Your task to perform on an android device: check battery use Image 0: 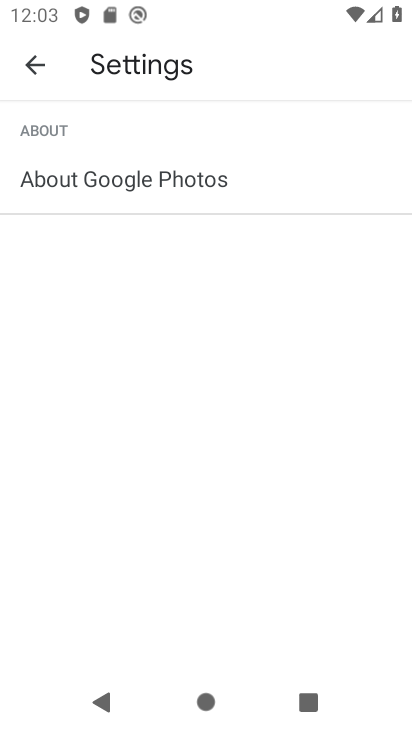
Step 0: press home button
Your task to perform on an android device: check battery use Image 1: 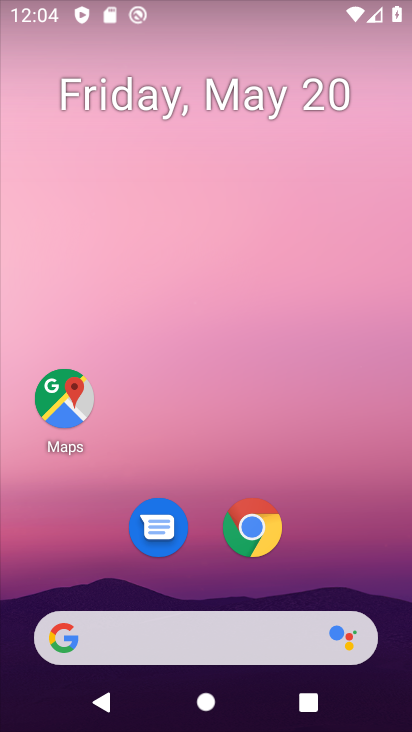
Step 1: drag from (353, 574) to (350, 0)
Your task to perform on an android device: check battery use Image 2: 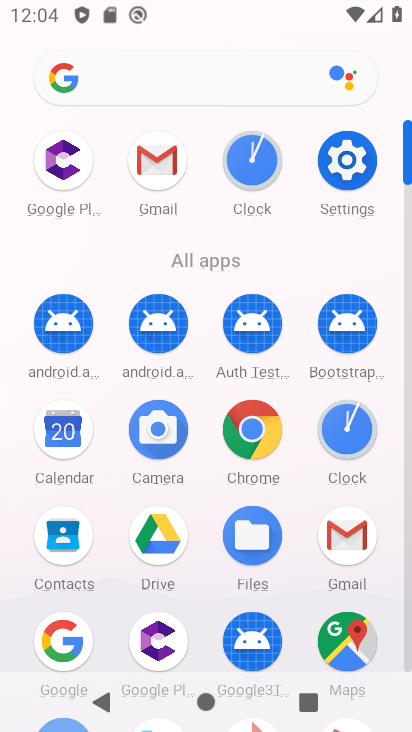
Step 2: click (352, 146)
Your task to perform on an android device: check battery use Image 3: 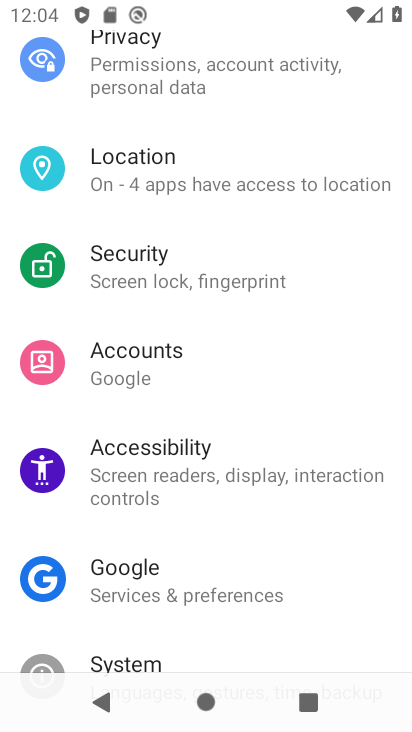
Step 3: drag from (208, 138) to (221, 688)
Your task to perform on an android device: check battery use Image 4: 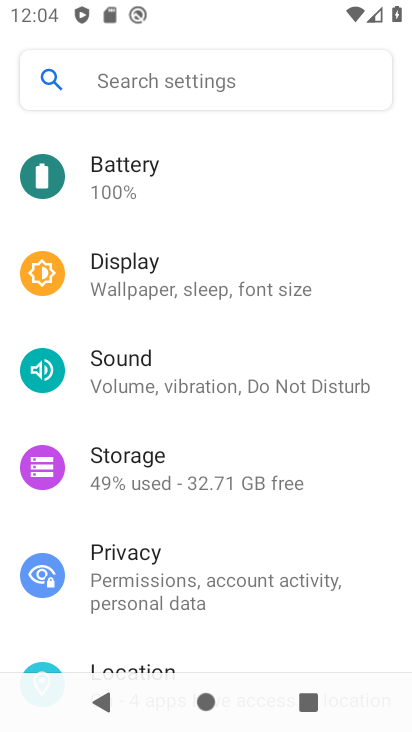
Step 4: click (179, 188)
Your task to perform on an android device: check battery use Image 5: 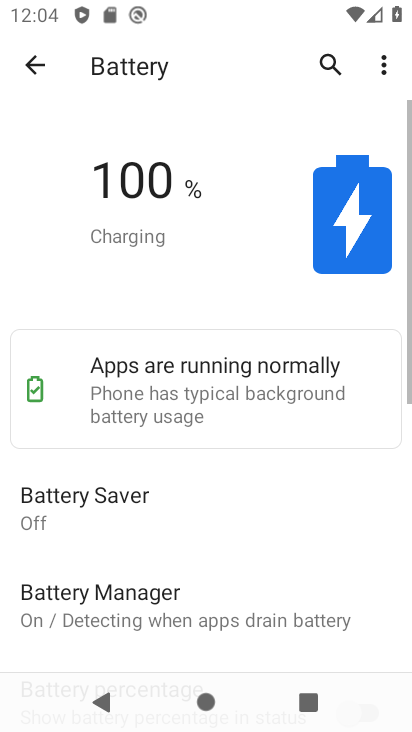
Step 5: task complete